Your task to perform on an android device: turn off location Image 0: 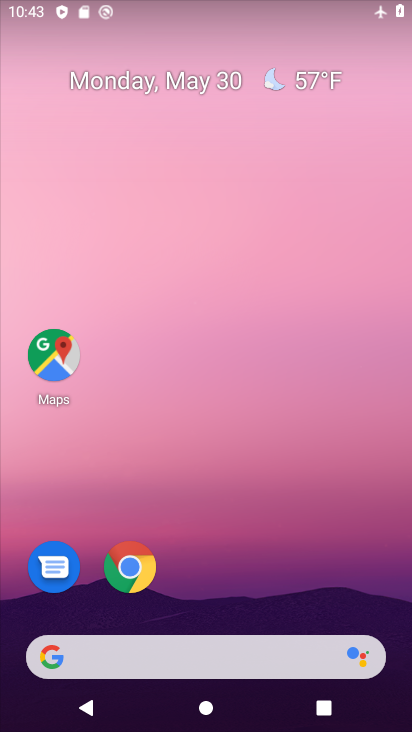
Step 0: drag from (212, 602) to (189, 187)
Your task to perform on an android device: turn off location Image 1: 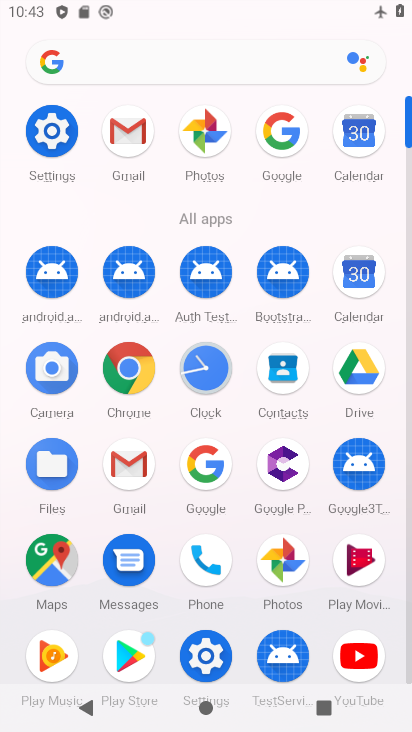
Step 1: click (55, 134)
Your task to perform on an android device: turn off location Image 2: 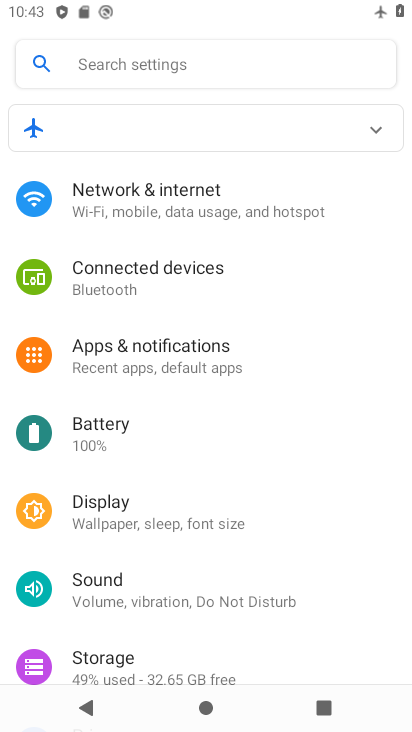
Step 2: drag from (226, 544) to (189, 282)
Your task to perform on an android device: turn off location Image 3: 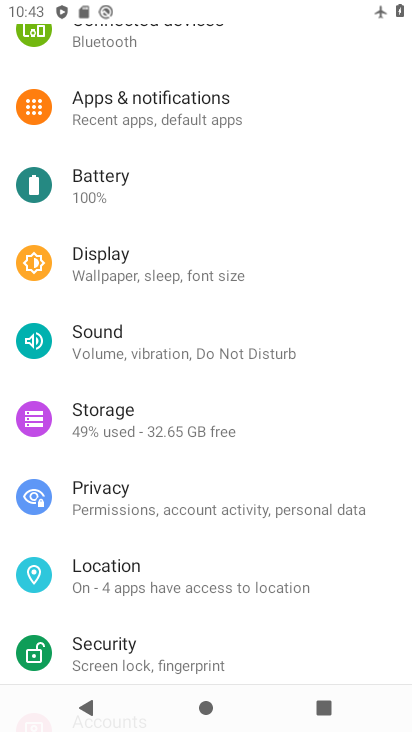
Step 3: click (225, 560)
Your task to perform on an android device: turn off location Image 4: 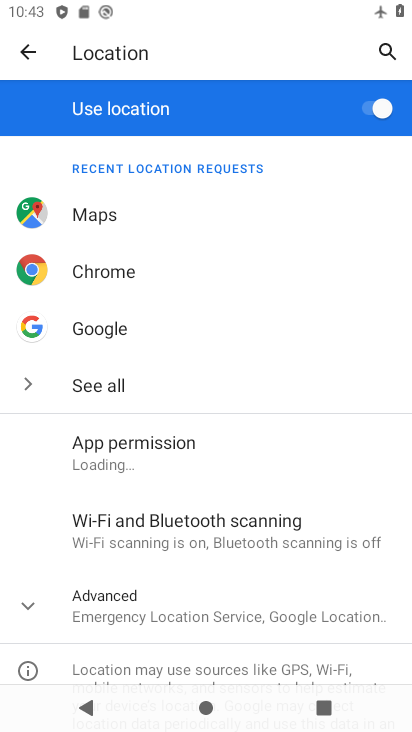
Step 4: click (374, 113)
Your task to perform on an android device: turn off location Image 5: 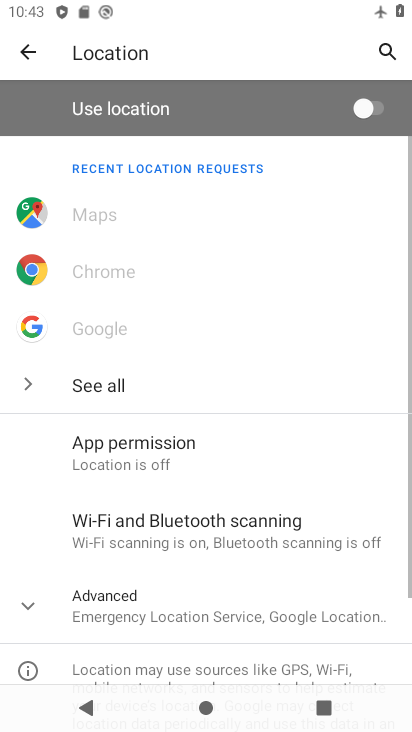
Step 5: task complete